Your task to perform on an android device: Go to wifi settings Image 0: 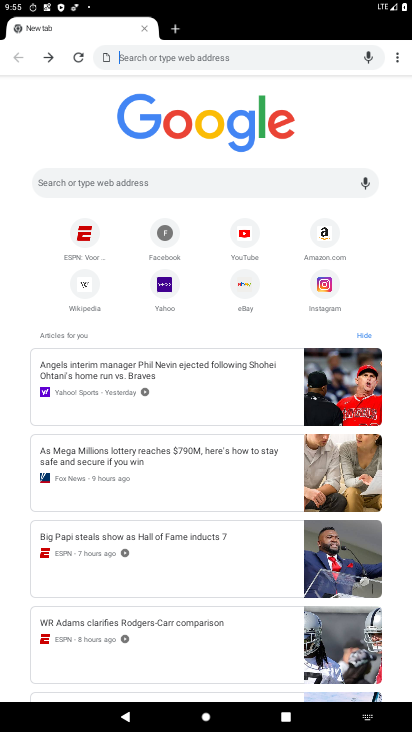
Step 0: press home button
Your task to perform on an android device: Go to wifi settings Image 1: 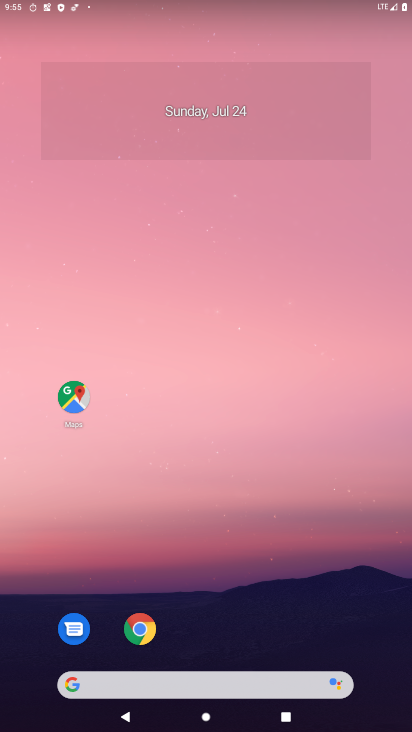
Step 1: drag from (211, 500) to (177, 34)
Your task to perform on an android device: Go to wifi settings Image 2: 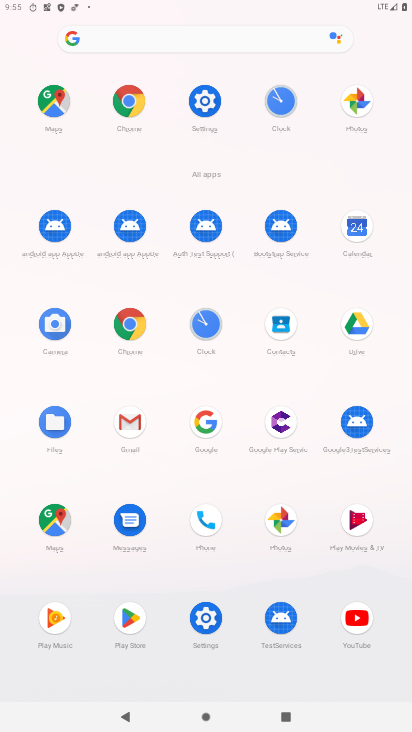
Step 2: click (207, 97)
Your task to perform on an android device: Go to wifi settings Image 3: 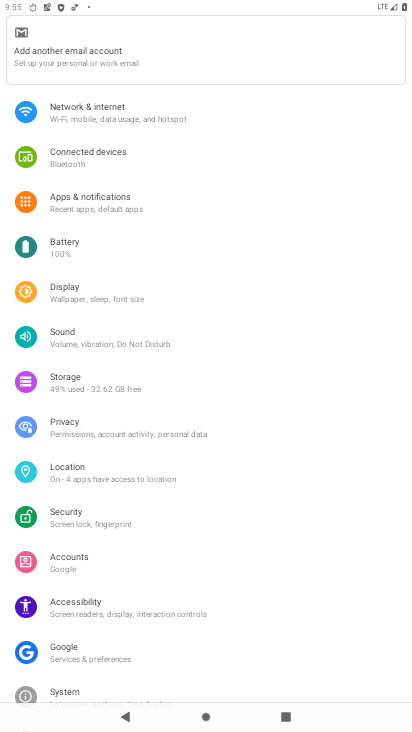
Step 3: click (121, 112)
Your task to perform on an android device: Go to wifi settings Image 4: 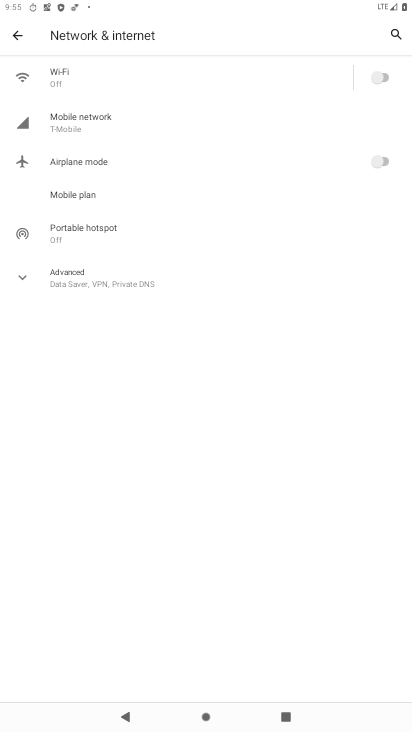
Step 4: click (70, 70)
Your task to perform on an android device: Go to wifi settings Image 5: 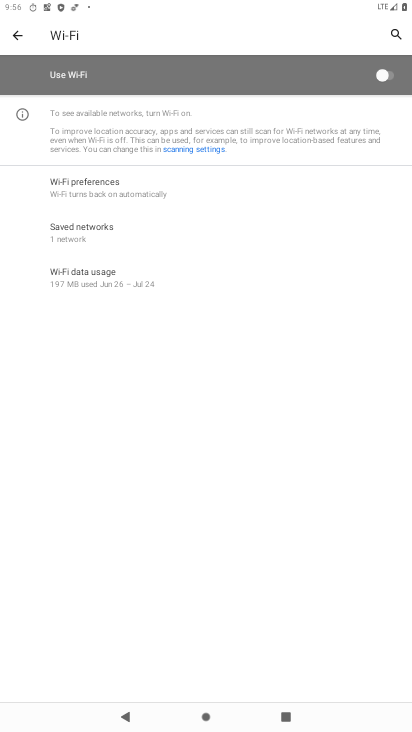
Step 5: task complete